Your task to perform on an android device: turn vacation reply on in the gmail app Image 0: 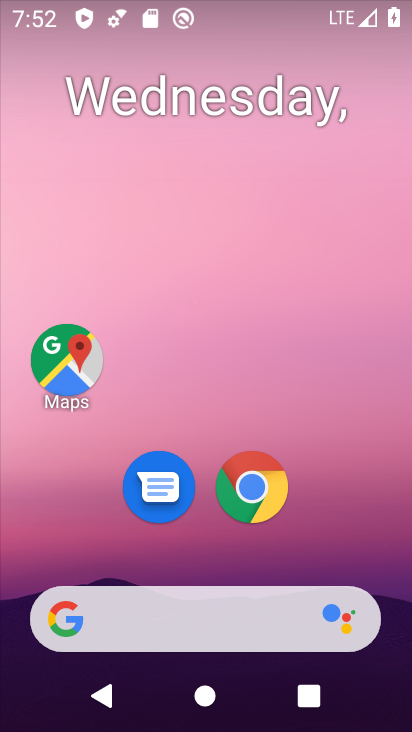
Step 0: press home button
Your task to perform on an android device: turn vacation reply on in the gmail app Image 1: 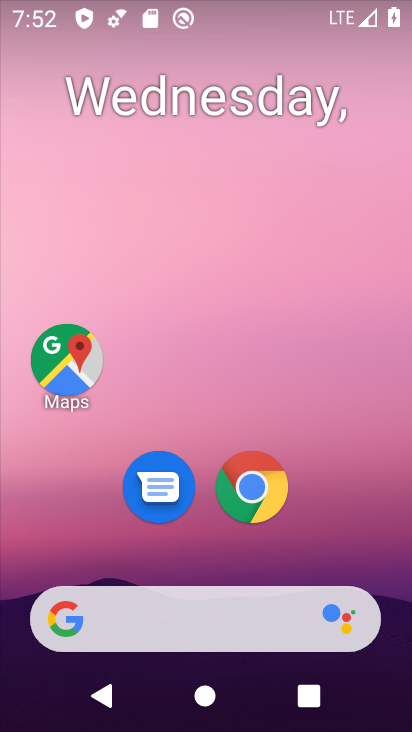
Step 1: drag from (83, 495) to (306, 121)
Your task to perform on an android device: turn vacation reply on in the gmail app Image 2: 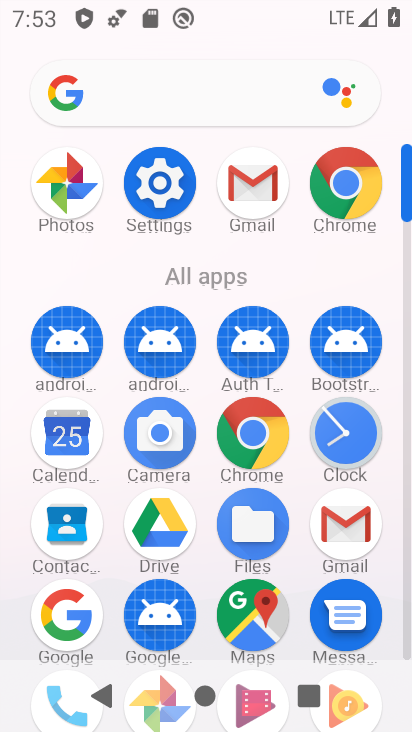
Step 2: click (250, 178)
Your task to perform on an android device: turn vacation reply on in the gmail app Image 3: 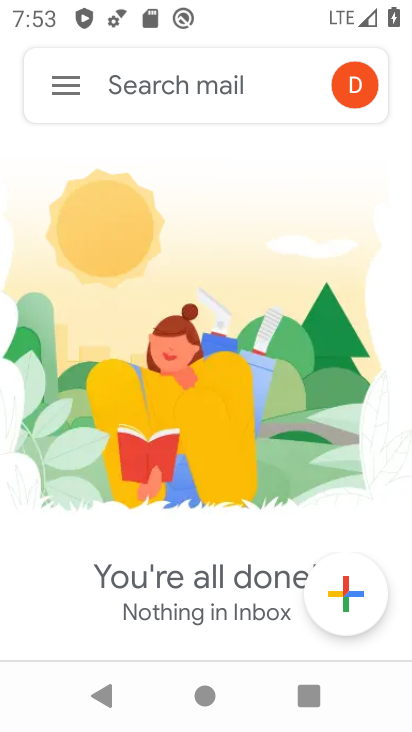
Step 3: click (59, 74)
Your task to perform on an android device: turn vacation reply on in the gmail app Image 4: 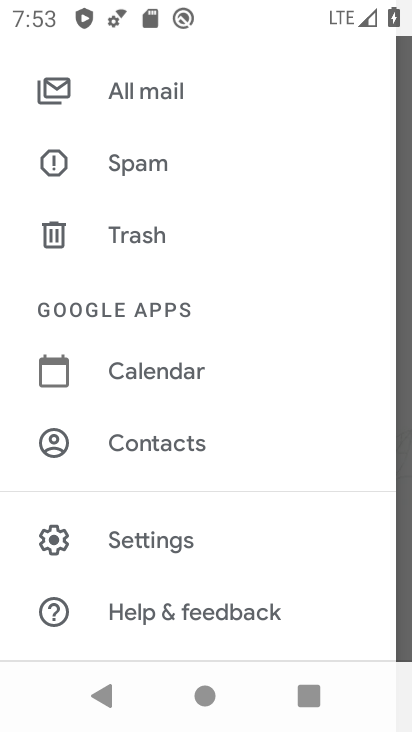
Step 4: click (162, 540)
Your task to perform on an android device: turn vacation reply on in the gmail app Image 5: 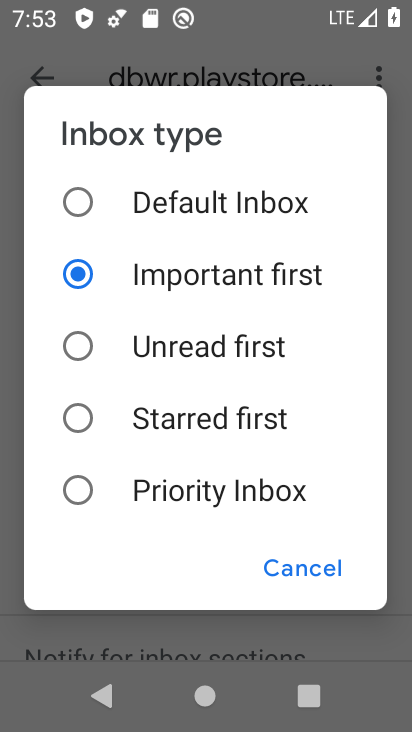
Step 5: press back button
Your task to perform on an android device: turn vacation reply on in the gmail app Image 6: 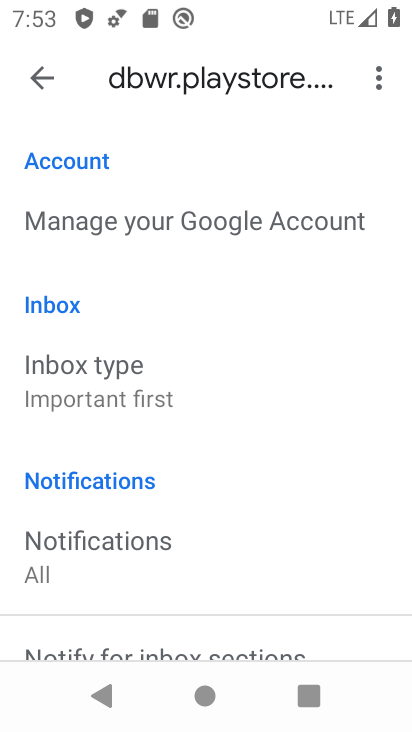
Step 6: drag from (2, 635) to (209, 377)
Your task to perform on an android device: turn vacation reply on in the gmail app Image 7: 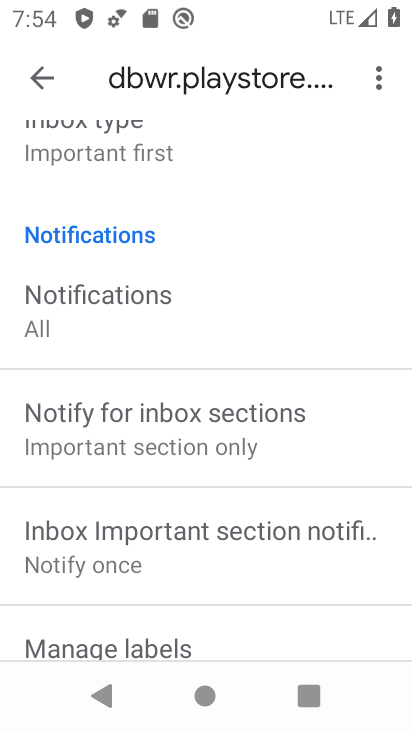
Step 7: drag from (262, 223) to (164, 526)
Your task to perform on an android device: turn vacation reply on in the gmail app Image 8: 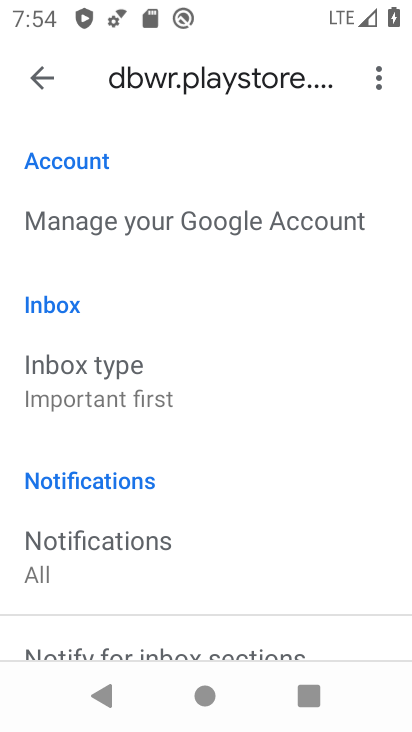
Step 8: drag from (168, 255) to (121, 524)
Your task to perform on an android device: turn vacation reply on in the gmail app Image 9: 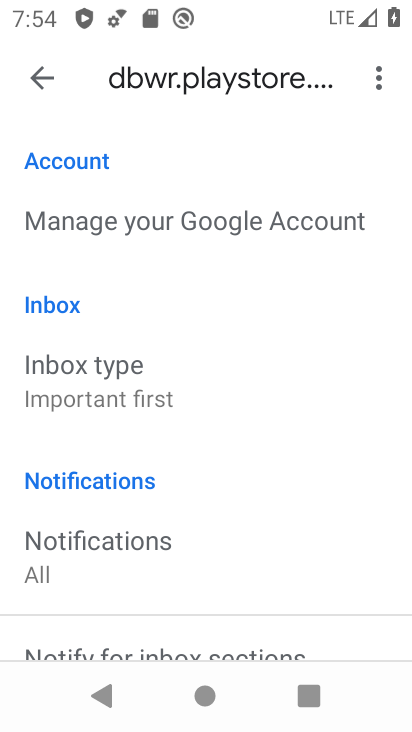
Step 9: press back button
Your task to perform on an android device: turn vacation reply on in the gmail app Image 10: 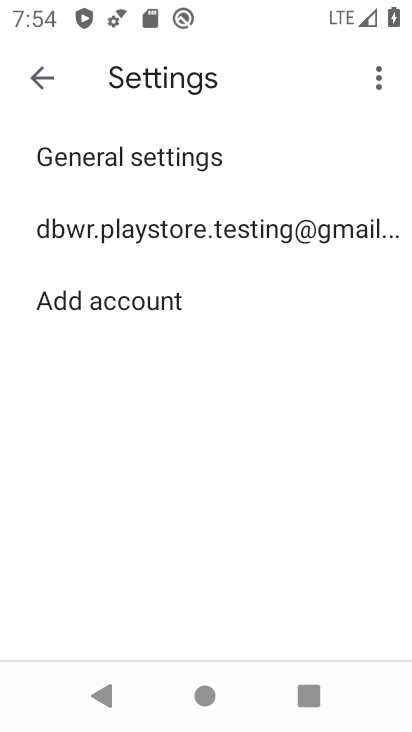
Step 10: click (172, 223)
Your task to perform on an android device: turn vacation reply on in the gmail app Image 11: 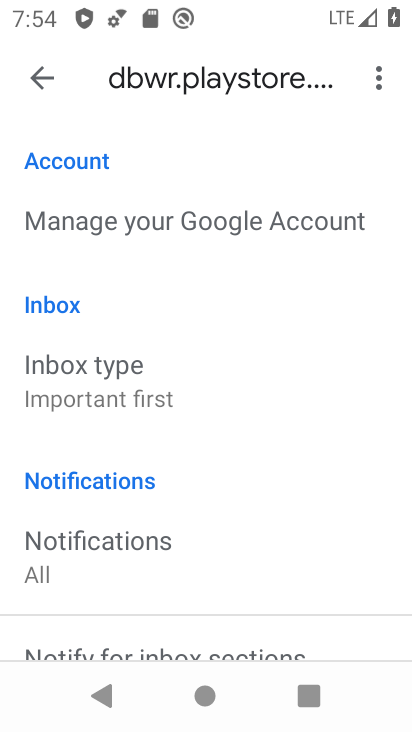
Step 11: drag from (7, 543) to (220, 120)
Your task to perform on an android device: turn vacation reply on in the gmail app Image 12: 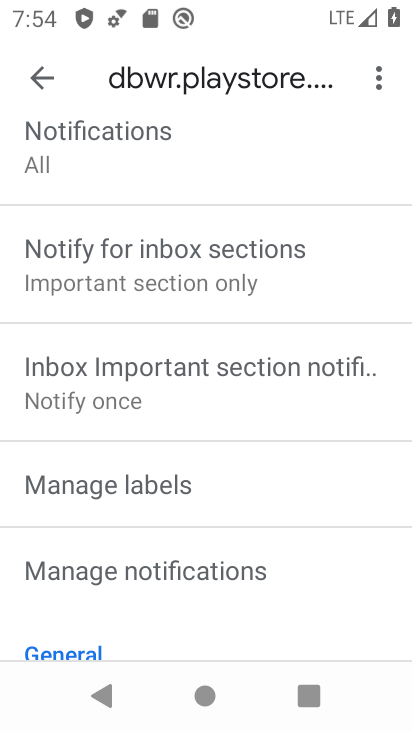
Step 12: drag from (25, 571) to (217, 292)
Your task to perform on an android device: turn vacation reply on in the gmail app Image 13: 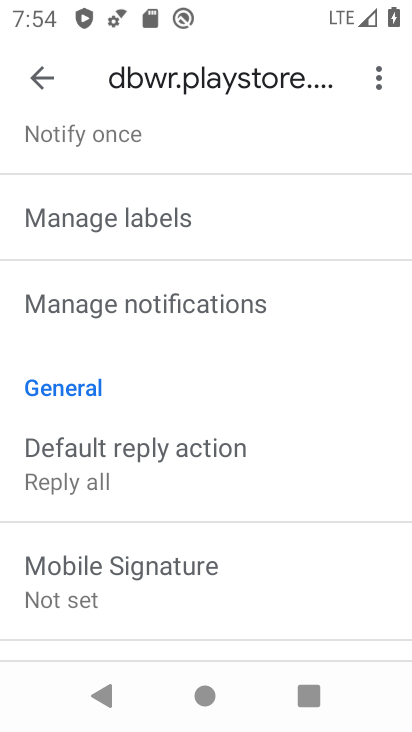
Step 13: drag from (16, 548) to (251, 238)
Your task to perform on an android device: turn vacation reply on in the gmail app Image 14: 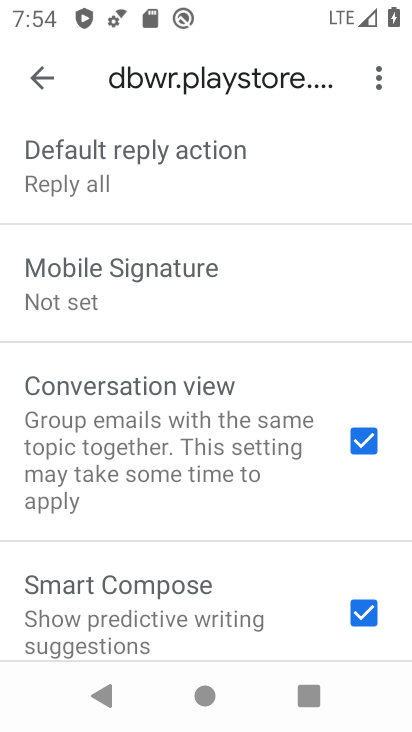
Step 14: drag from (29, 511) to (262, 185)
Your task to perform on an android device: turn vacation reply on in the gmail app Image 15: 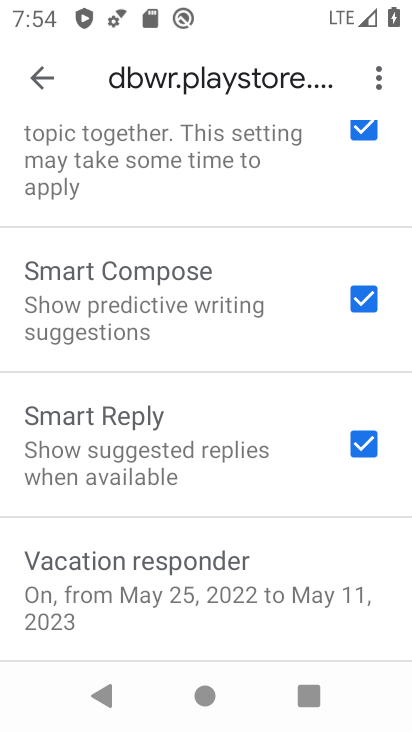
Step 15: click (53, 602)
Your task to perform on an android device: turn vacation reply on in the gmail app Image 16: 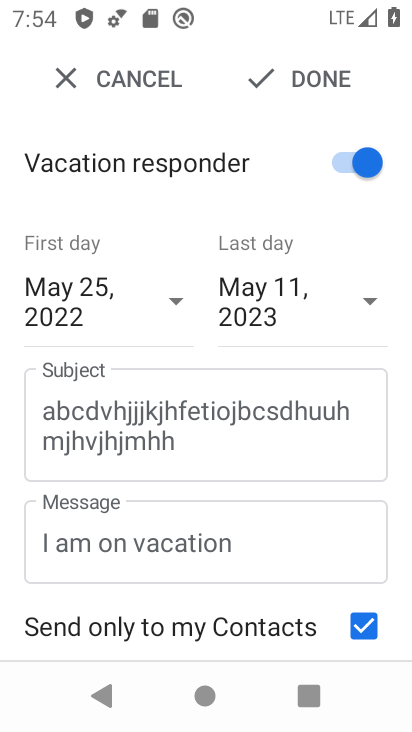
Step 16: click (305, 81)
Your task to perform on an android device: turn vacation reply on in the gmail app Image 17: 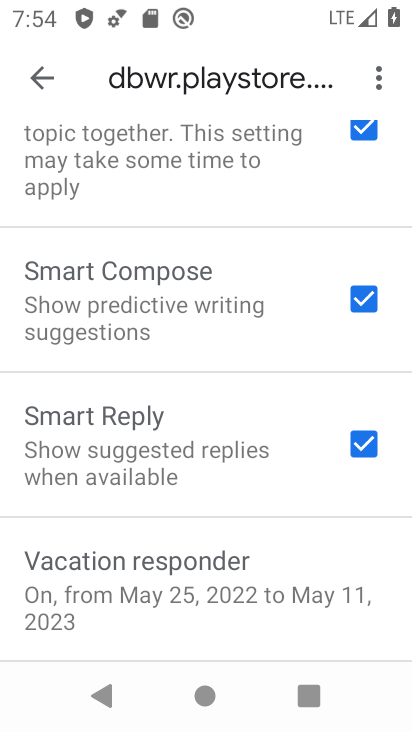
Step 17: task complete